Your task to perform on an android device: turn on translation in the chrome app Image 0: 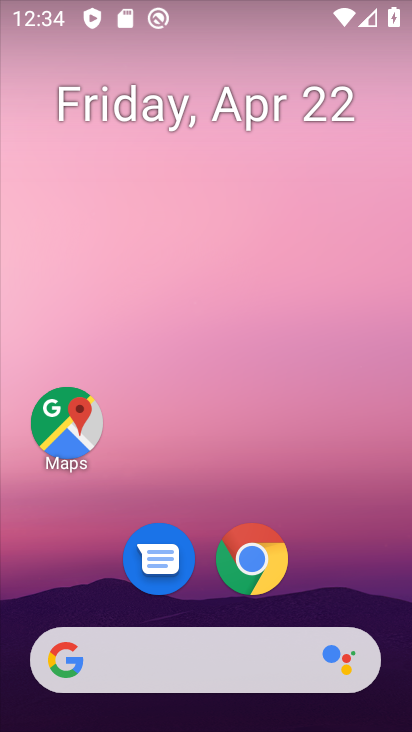
Step 0: drag from (362, 582) to (220, 81)
Your task to perform on an android device: turn on translation in the chrome app Image 1: 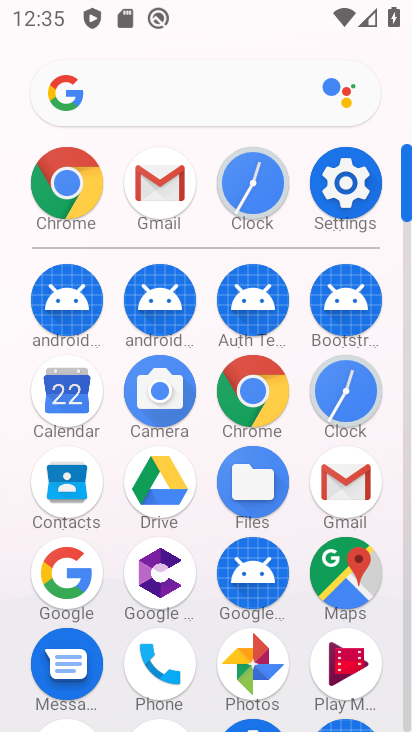
Step 1: click (233, 404)
Your task to perform on an android device: turn on translation in the chrome app Image 2: 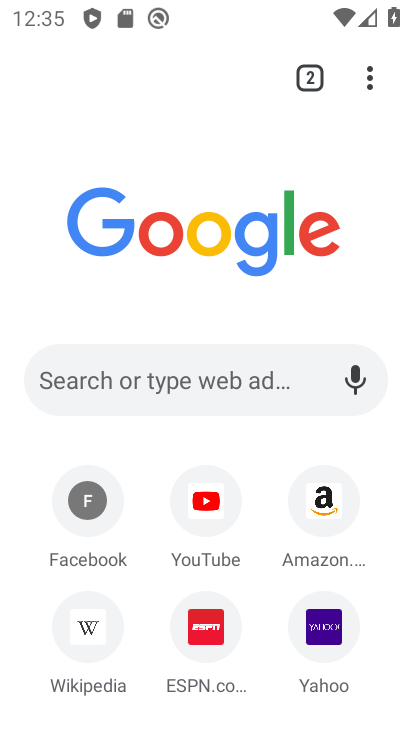
Step 2: click (372, 76)
Your task to perform on an android device: turn on translation in the chrome app Image 3: 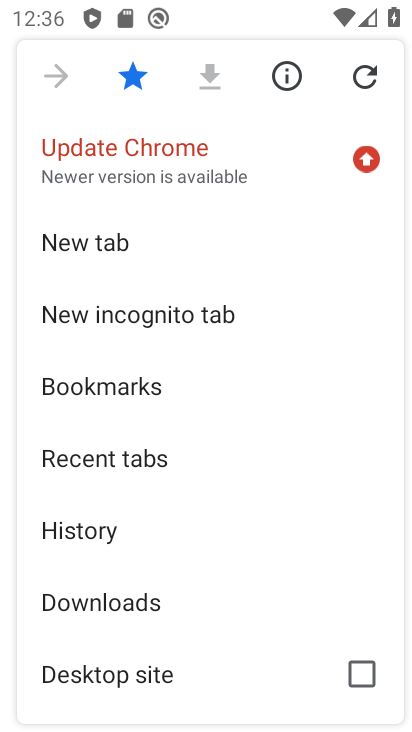
Step 3: drag from (104, 688) to (217, 220)
Your task to perform on an android device: turn on translation in the chrome app Image 4: 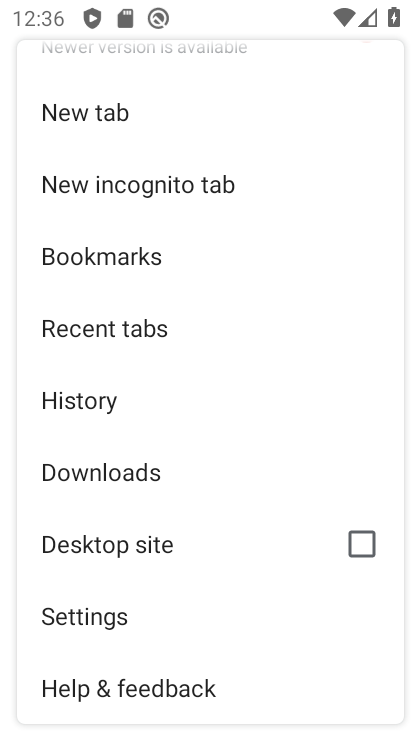
Step 4: click (124, 642)
Your task to perform on an android device: turn on translation in the chrome app Image 5: 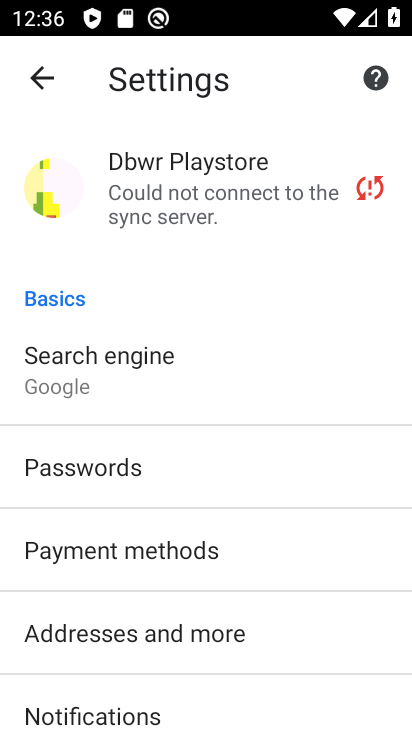
Step 5: drag from (155, 650) to (238, 212)
Your task to perform on an android device: turn on translation in the chrome app Image 6: 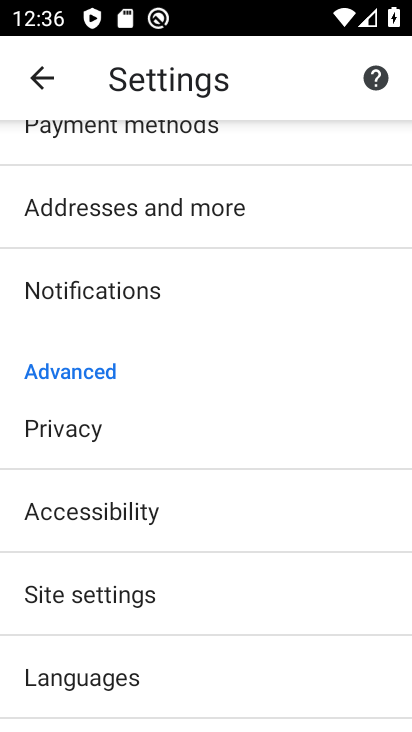
Step 6: drag from (177, 597) to (196, 241)
Your task to perform on an android device: turn on translation in the chrome app Image 7: 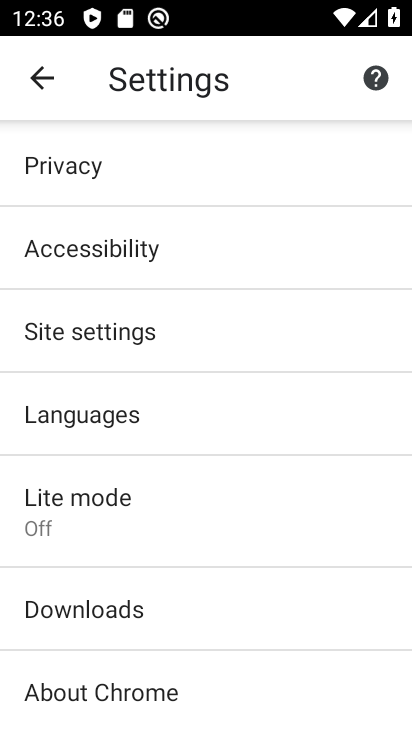
Step 7: click (225, 422)
Your task to perform on an android device: turn on translation in the chrome app Image 8: 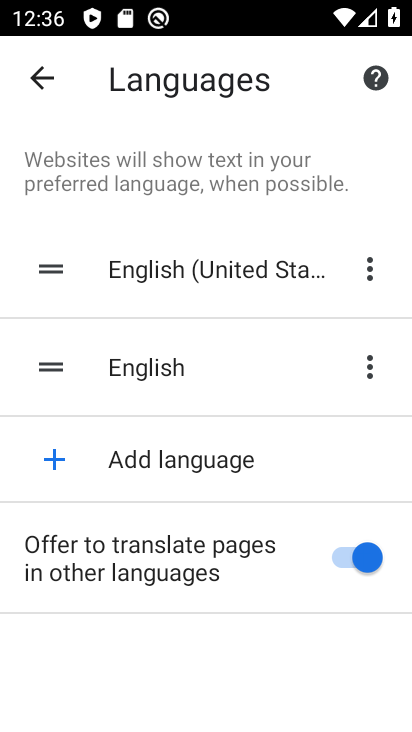
Step 8: task complete